Your task to perform on an android device: Go to Yahoo.com Image 0: 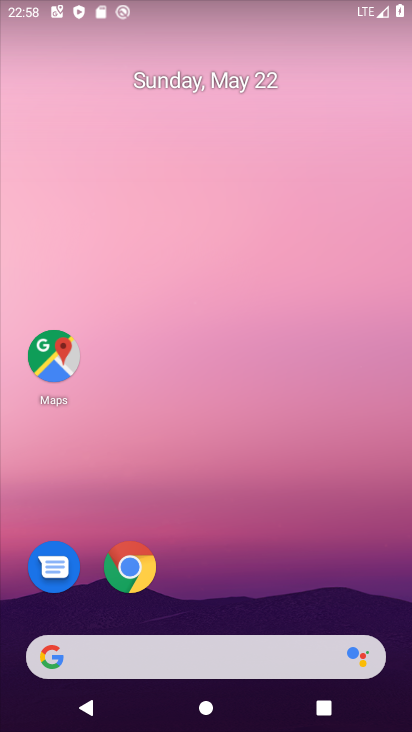
Step 0: drag from (242, 535) to (189, 9)
Your task to perform on an android device: Go to Yahoo.com Image 1: 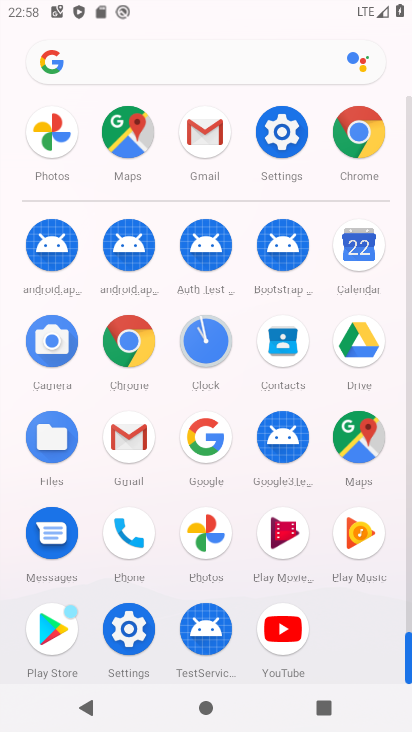
Step 1: click (127, 338)
Your task to perform on an android device: Go to Yahoo.com Image 2: 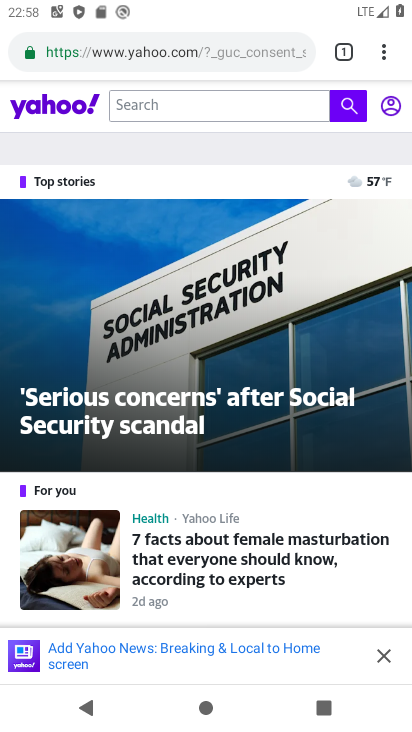
Step 2: click (159, 33)
Your task to perform on an android device: Go to Yahoo.com Image 3: 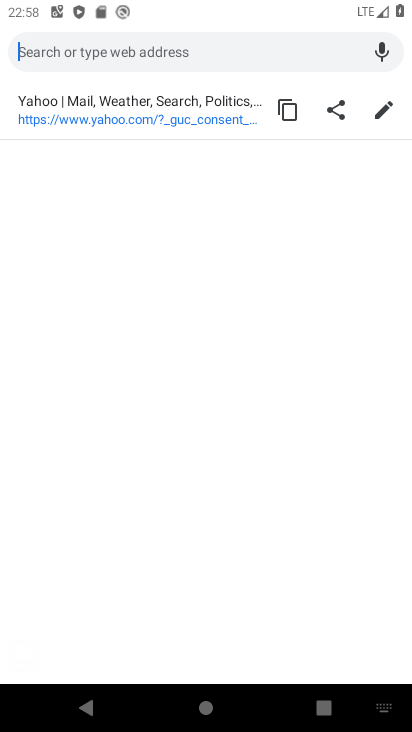
Step 3: type "Yahoo.com"
Your task to perform on an android device: Go to Yahoo.com Image 4: 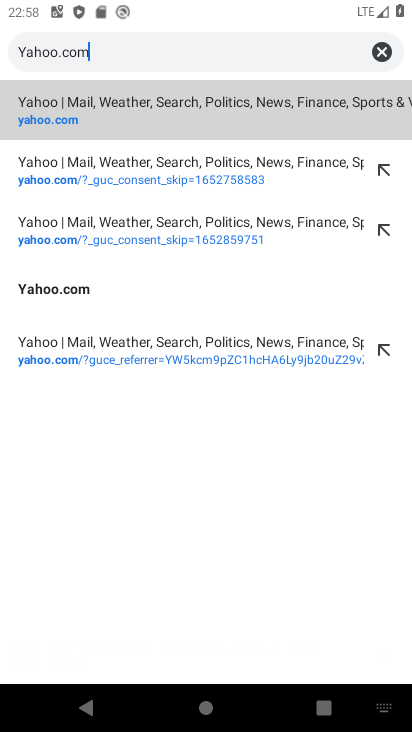
Step 4: click (143, 115)
Your task to perform on an android device: Go to Yahoo.com Image 5: 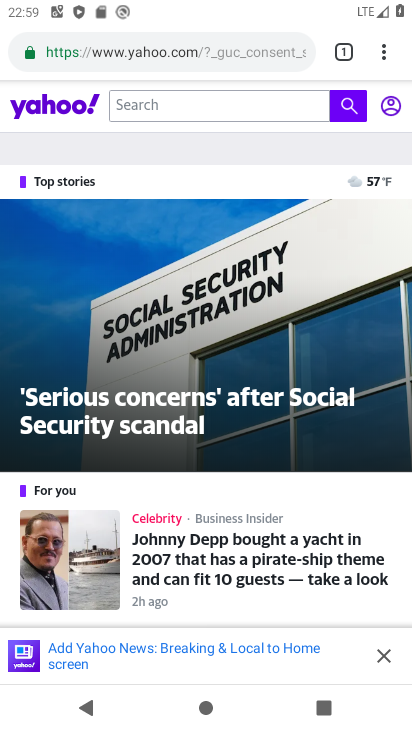
Step 5: task complete